Your task to perform on an android device: Go to eBay Image 0: 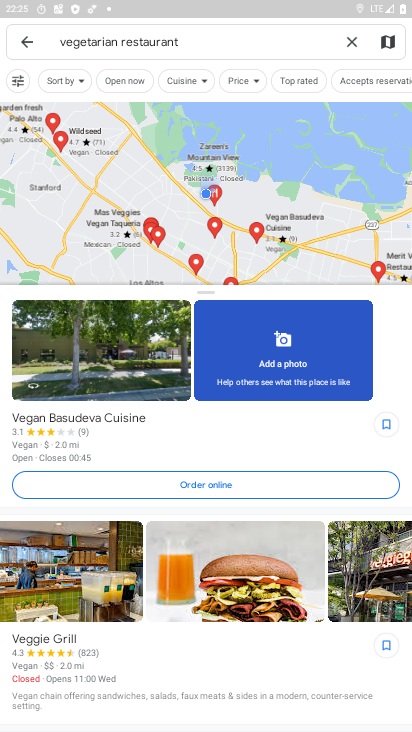
Step 0: press home button
Your task to perform on an android device: Go to eBay Image 1: 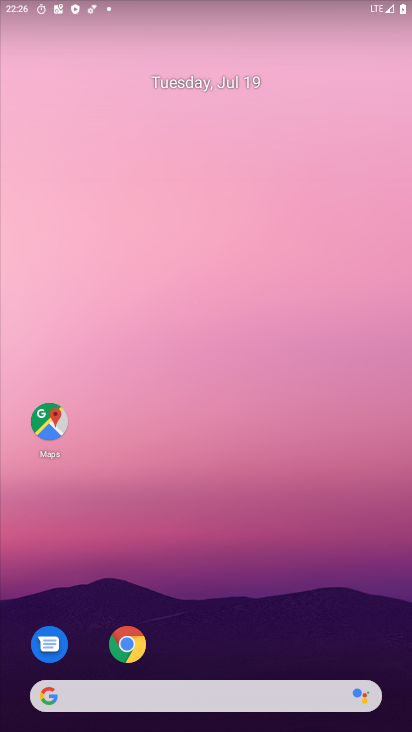
Step 1: drag from (240, 665) to (346, 236)
Your task to perform on an android device: Go to eBay Image 2: 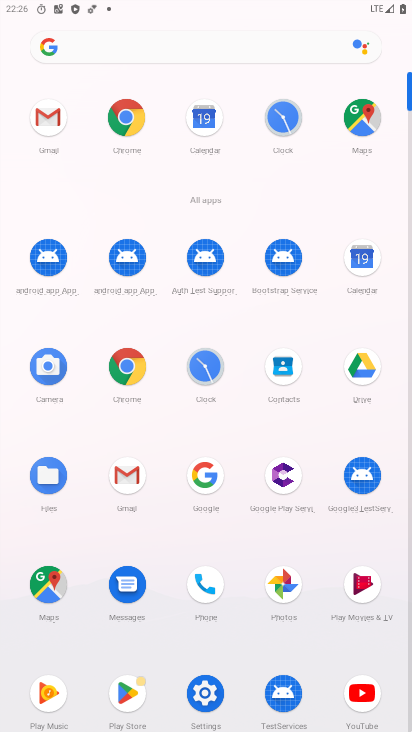
Step 2: click (139, 154)
Your task to perform on an android device: Go to eBay Image 3: 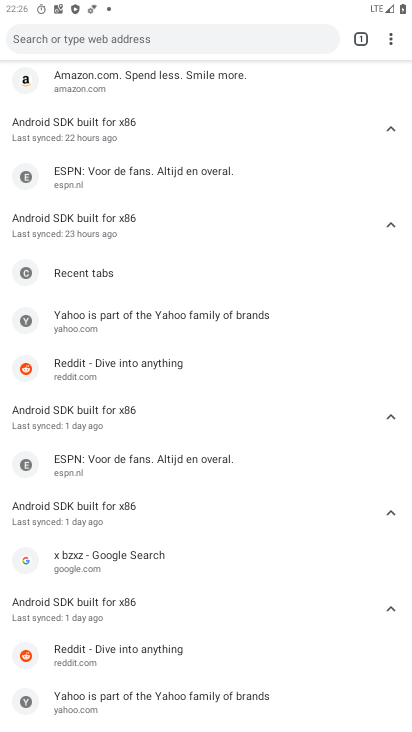
Step 3: click (150, 42)
Your task to perform on an android device: Go to eBay Image 4: 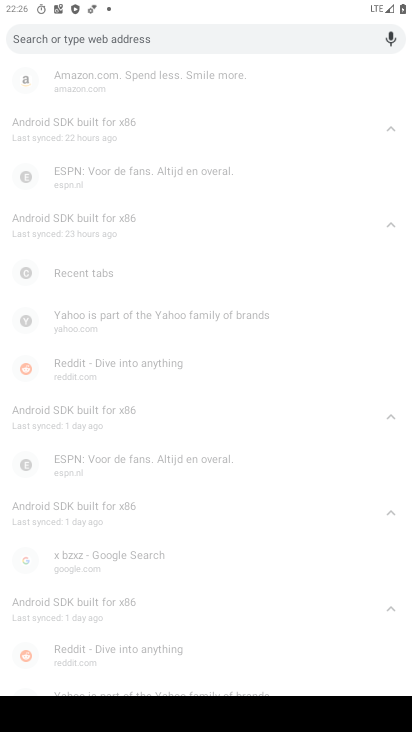
Step 4: click (111, 134)
Your task to perform on an android device: Go to eBay Image 5: 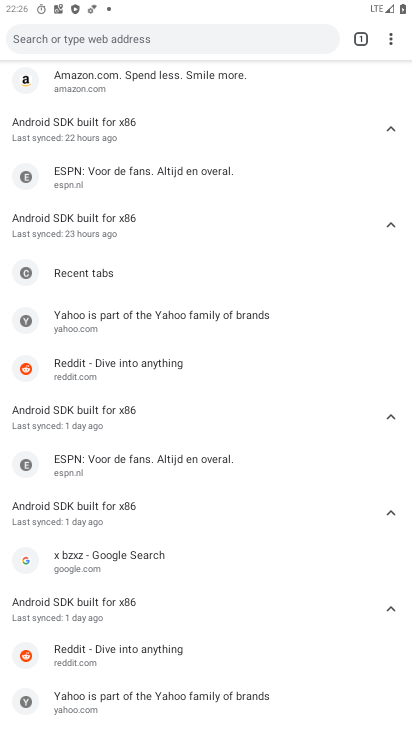
Step 5: press back button
Your task to perform on an android device: Go to eBay Image 6: 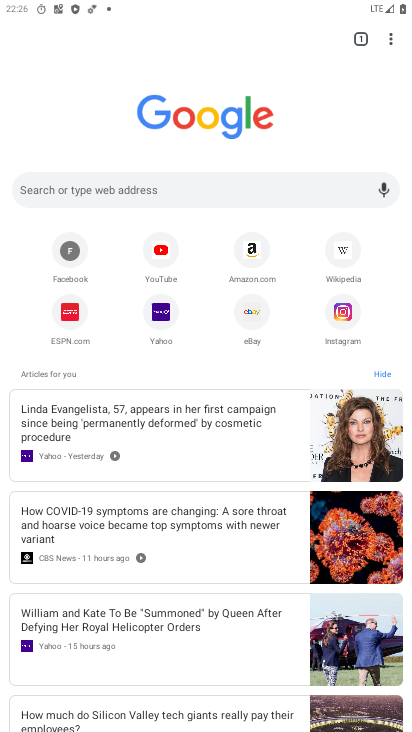
Step 6: click (259, 317)
Your task to perform on an android device: Go to eBay Image 7: 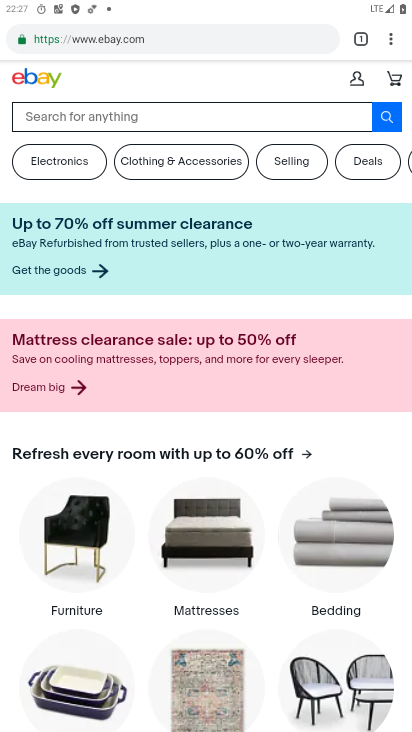
Step 7: task complete